Your task to perform on an android device: Open the Play Movies app and select the watchlist tab. Image 0: 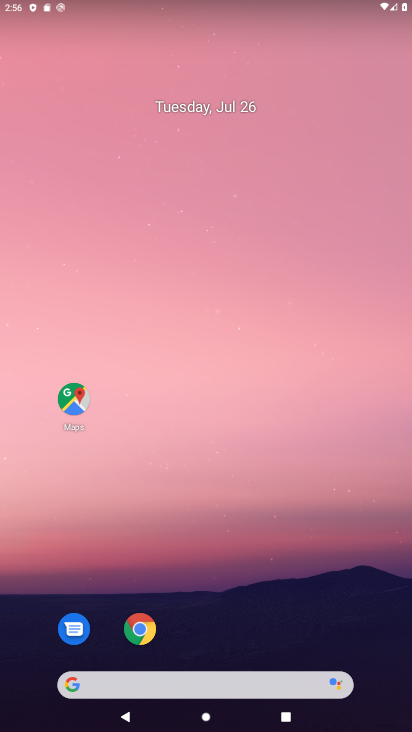
Step 0: drag from (234, 723) to (273, 151)
Your task to perform on an android device: Open the Play Movies app and select the watchlist tab. Image 1: 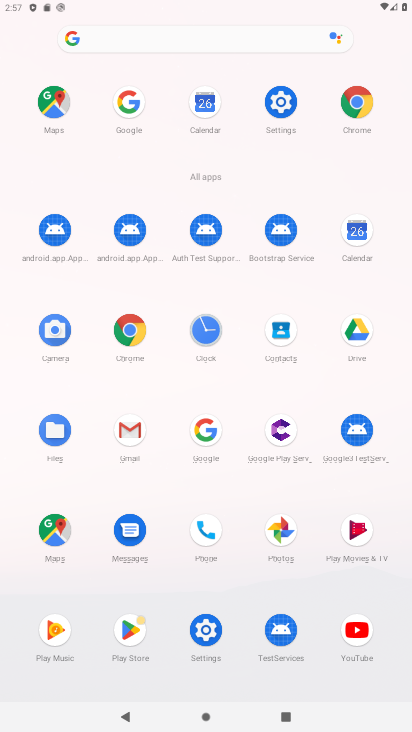
Step 1: click (354, 530)
Your task to perform on an android device: Open the Play Movies app and select the watchlist tab. Image 2: 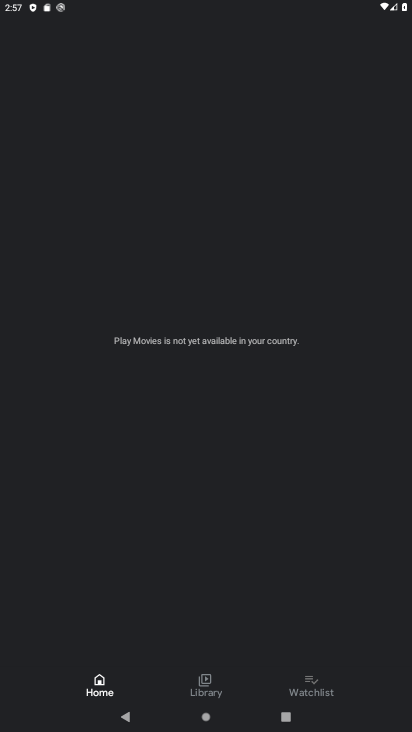
Step 2: click (315, 685)
Your task to perform on an android device: Open the Play Movies app and select the watchlist tab. Image 3: 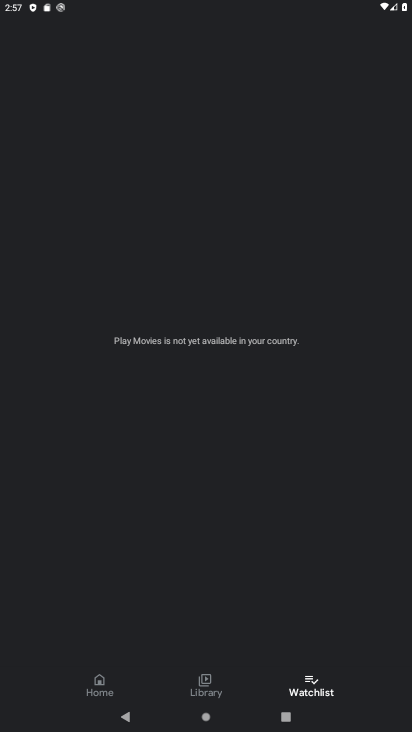
Step 3: task complete